Your task to perform on an android device: clear all cookies in the chrome app Image 0: 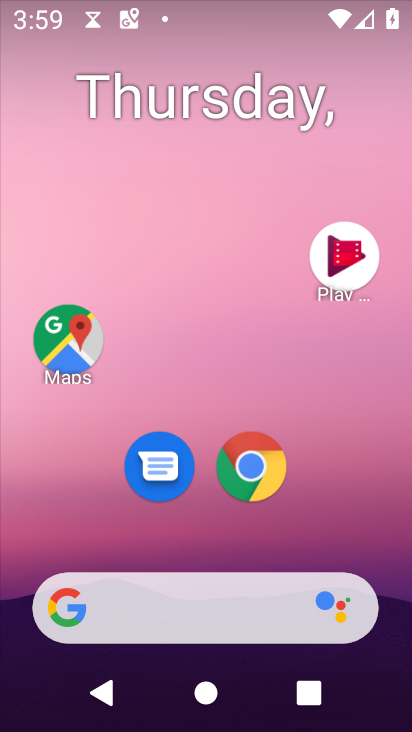
Step 0: drag from (310, 611) to (369, 4)
Your task to perform on an android device: clear all cookies in the chrome app Image 1: 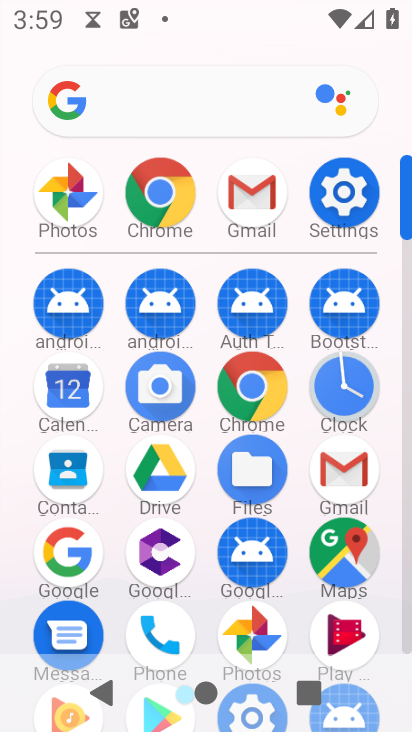
Step 1: click (274, 386)
Your task to perform on an android device: clear all cookies in the chrome app Image 2: 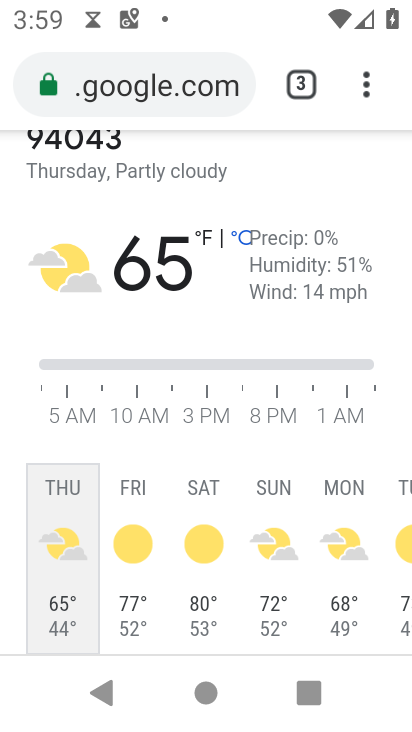
Step 2: drag from (376, 91) to (188, 533)
Your task to perform on an android device: clear all cookies in the chrome app Image 3: 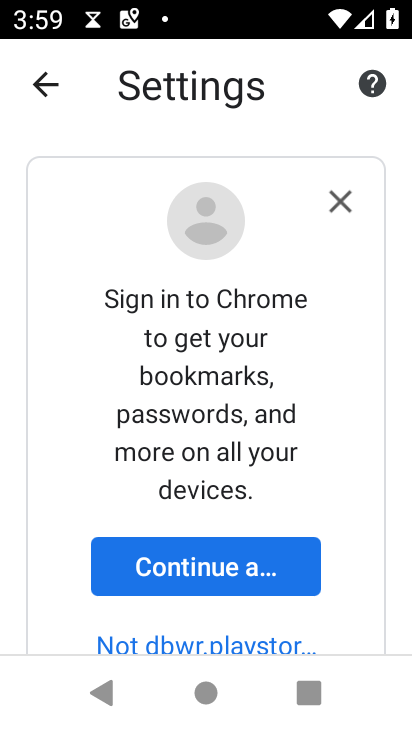
Step 3: drag from (314, 611) to (328, 4)
Your task to perform on an android device: clear all cookies in the chrome app Image 4: 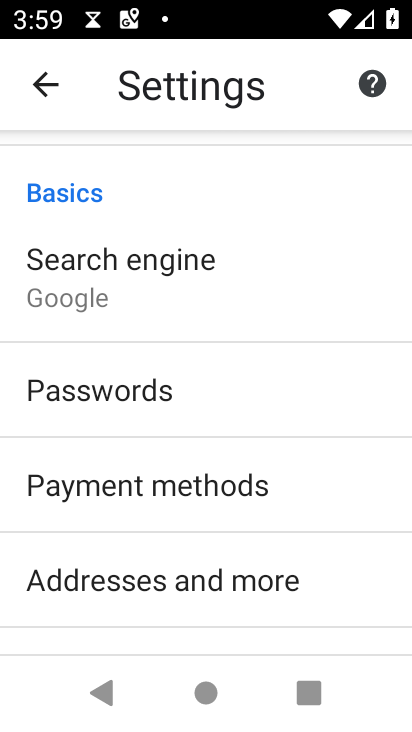
Step 4: drag from (264, 587) to (334, 91)
Your task to perform on an android device: clear all cookies in the chrome app Image 5: 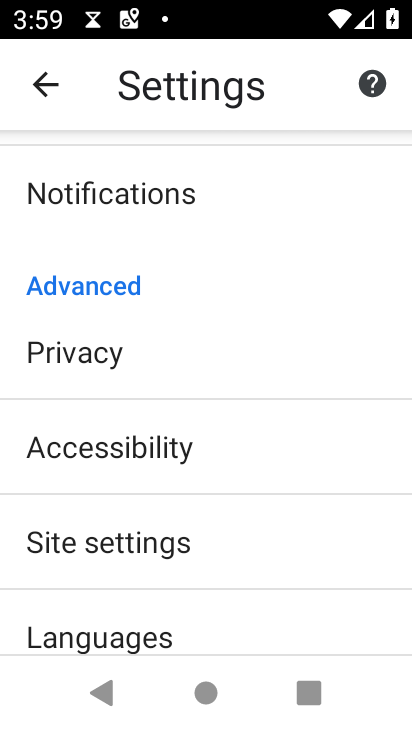
Step 5: click (151, 369)
Your task to perform on an android device: clear all cookies in the chrome app Image 6: 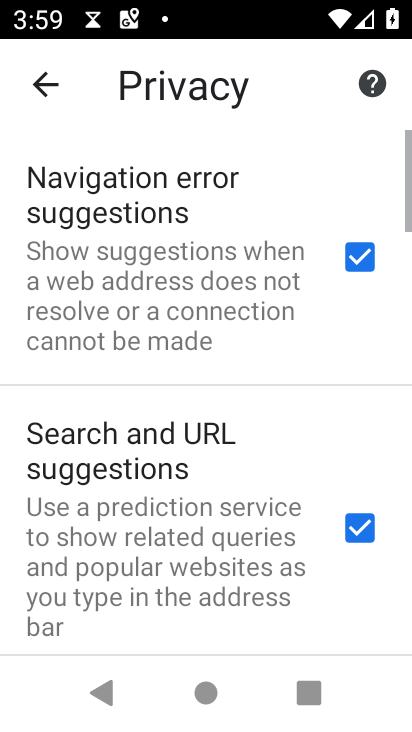
Step 6: drag from (188, 593) to (203, 13)
Your task to perform on an android device: clear all cookies in the chrome app Image 7: 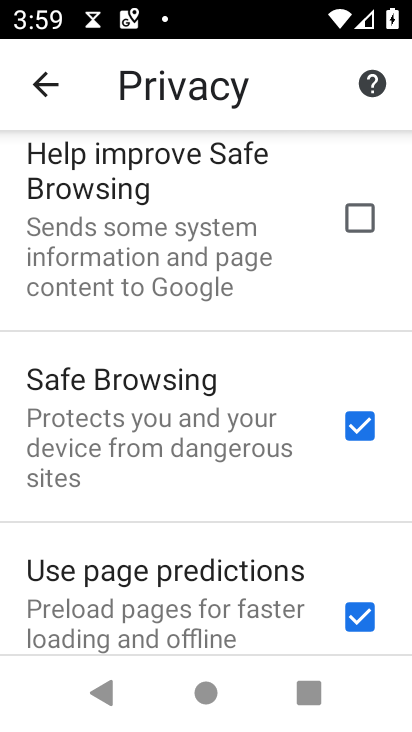
Step 7: drag from (164, 644) to (168, 113)
Your task to perform on an android device: clear all cookies in the chrome app Image 8: 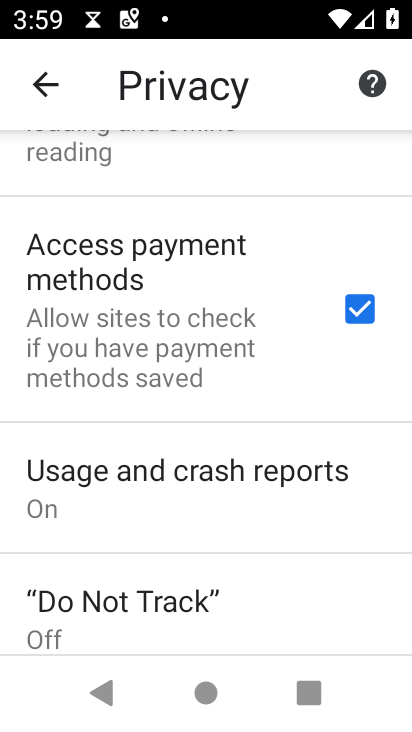
Step 8: drag from (211, 529) to (220, 47)
Your task to perform on an android device: clear all cookies in the chrome app Image 9: 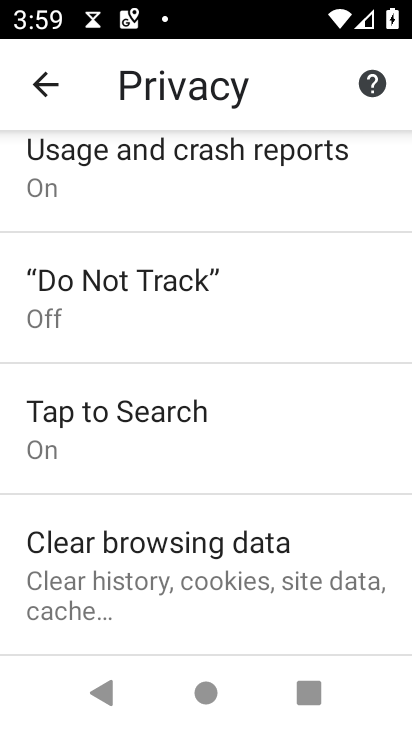
Step 9: click (223, 610)
Your task to perform on an android device: clear all cookies in the chrome app Image 10: 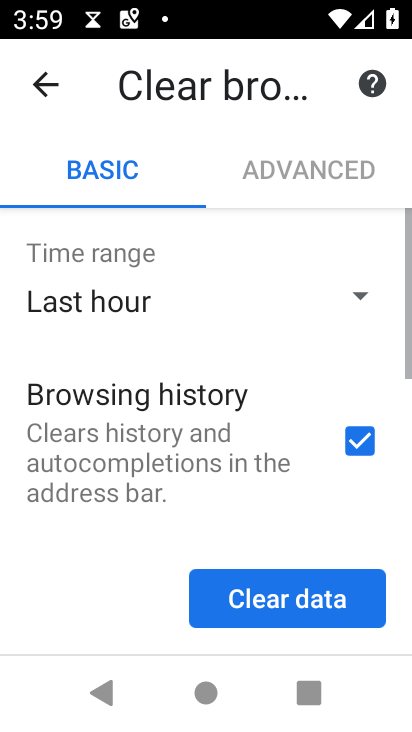
Step 10: click (296, 607)
Your task to perform on an android device: clear all cookies in the chrome app Image 11: 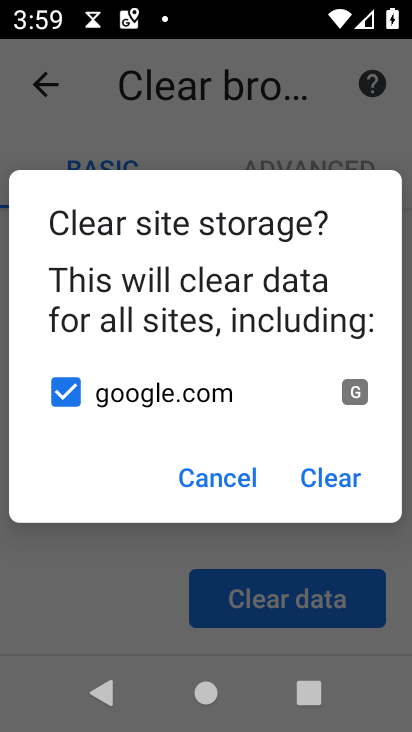
Step 11: click (323, 475)
Your task to perform on an android device: clear all cookies in the chrome app Image 12: 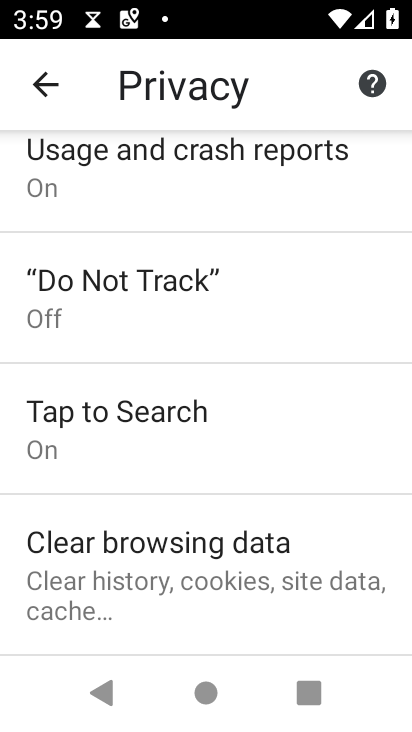
Step 12: task complete